Your task to perform on an android device: turn on the 12-hour format for clock Image 0: 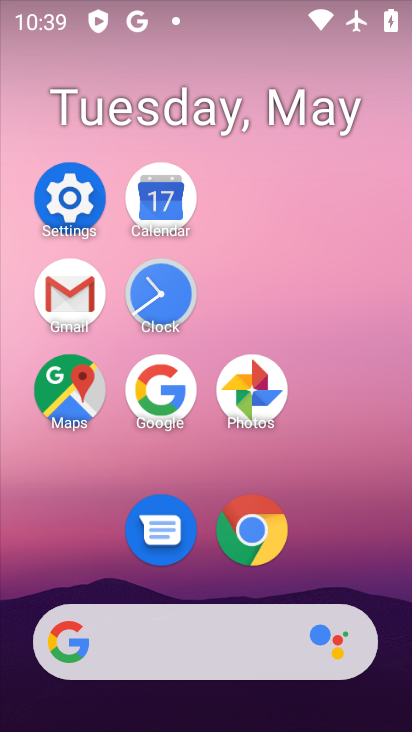
Step 0: click (158, 293)
Your task to perform on an android device: turn on the 12-hour format for clock Image 1: 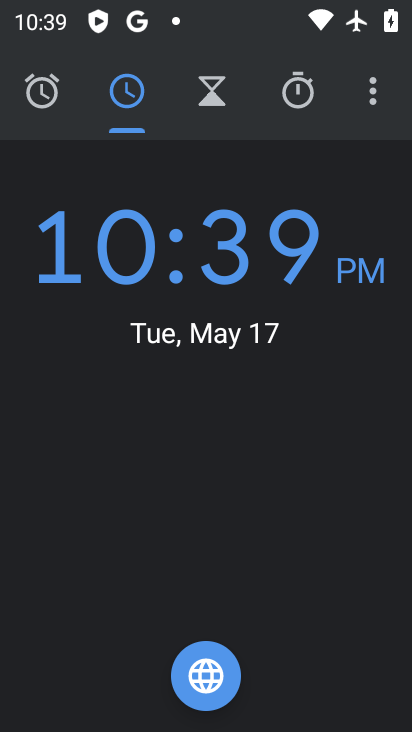
Step 1: click (372, 80)
Your task to perform on an android device: turn on the 12-hour format for clock Image 2: 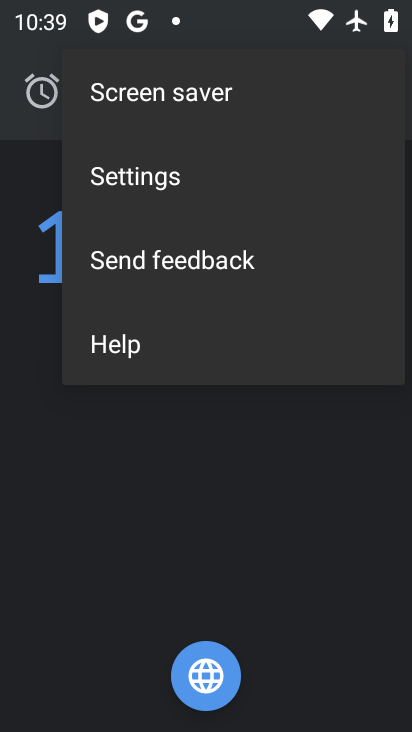
Step 2: click (252, 169)
Your task to perform on an android device: turn on the 12-hour format for clock Image 3: 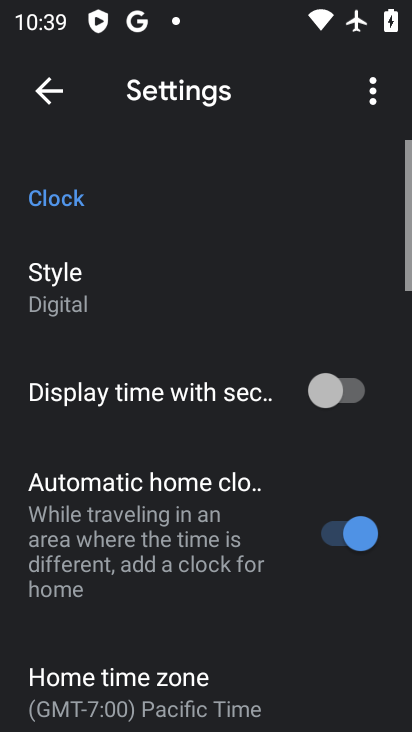
Step 3: drag from (161, 430) to (180, 197)
Your task to perform on an android device: turn on the 12-hour format for clock Image 4: 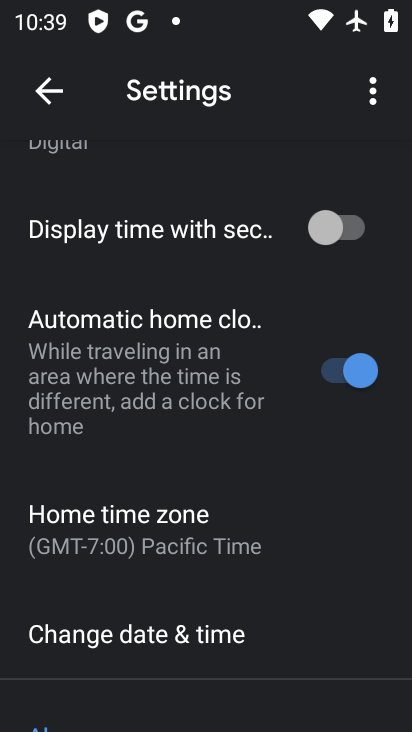
Step 4: click (156, 635)
Your task to perform on an android device: turn on the 12-hour format for clock Image 5: 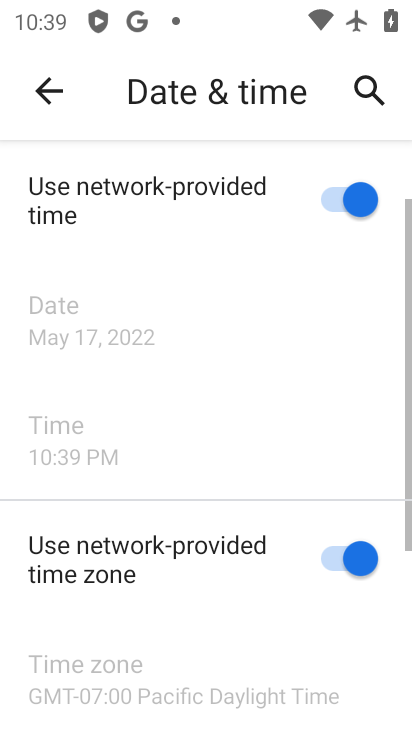
Step 5: task complete